Your task to perform on an android device: toggle sleep mode Image 0: 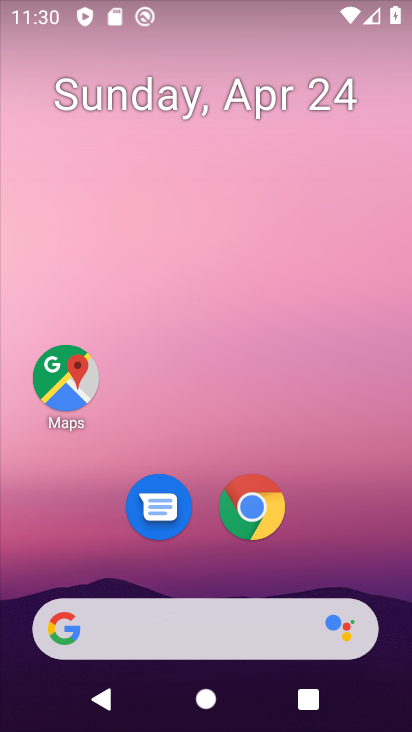
Step 0: drag from (341, 545) to (340, 57)
Your task to perform on an android device: toggle sleep mode Image 1: 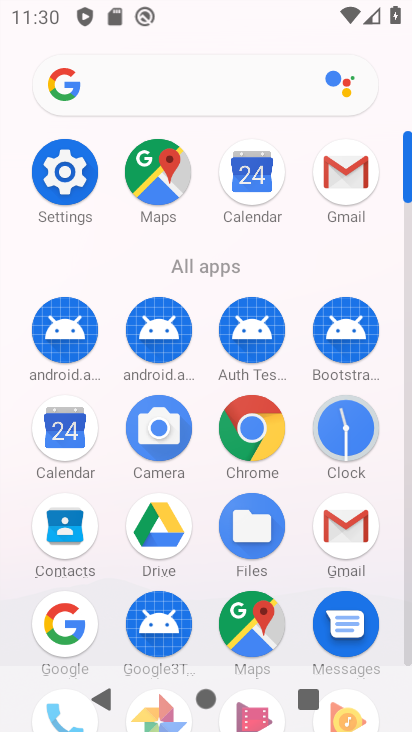
Step 1: click (68, 176)
Your task to perform on an android device: toggle sleep mode Image 2: 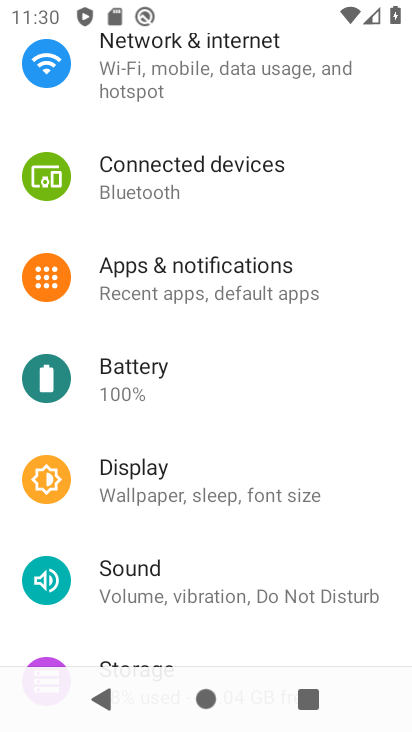
Step 2: click (201, 489)
Your task to perform on an android device: toggle sleep mode Image 3: 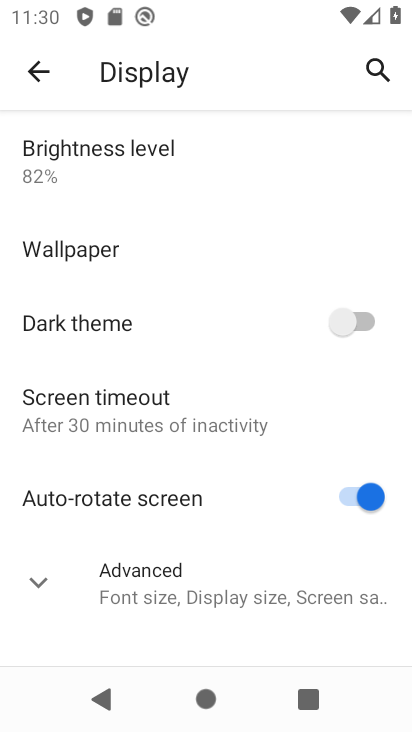
Step 3: click (184, 412)
Your task to perform on an android device: toggle sleep mode Image 4: 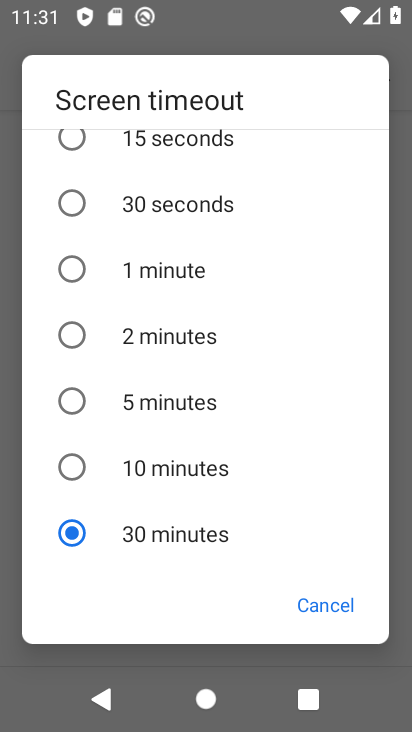
Step 4: click (205, 466)
Your task to perform on an android device: toggle sleep mode Image 5: 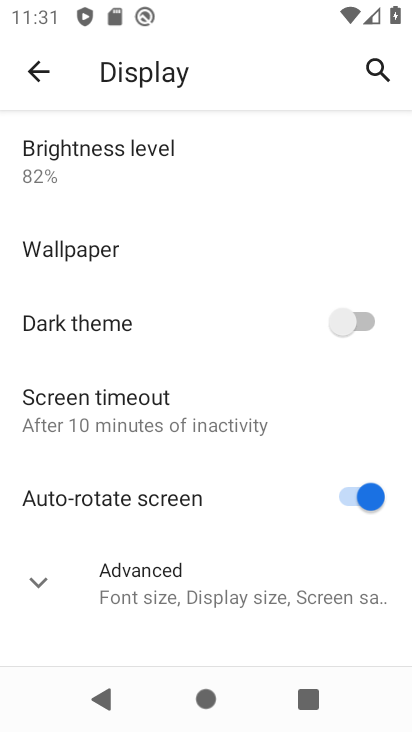
Step 5: task complete